Your task to perform on an android device: Open Reddit.com Image 0: 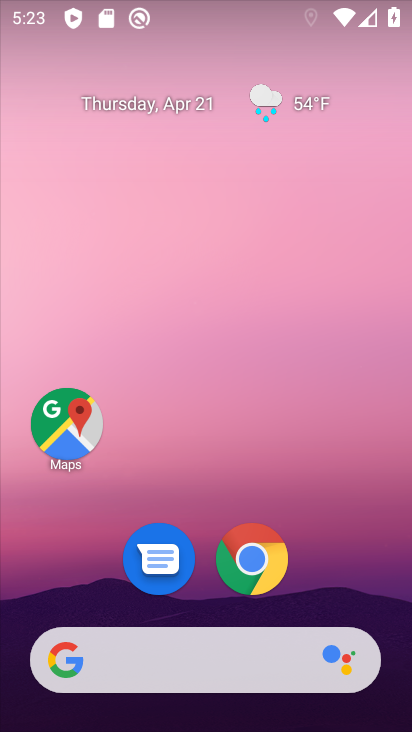
Step 0: drag from (341, 548) to (351, 0)
Your task to perform on an android device: Open Reddit.com Image 1: 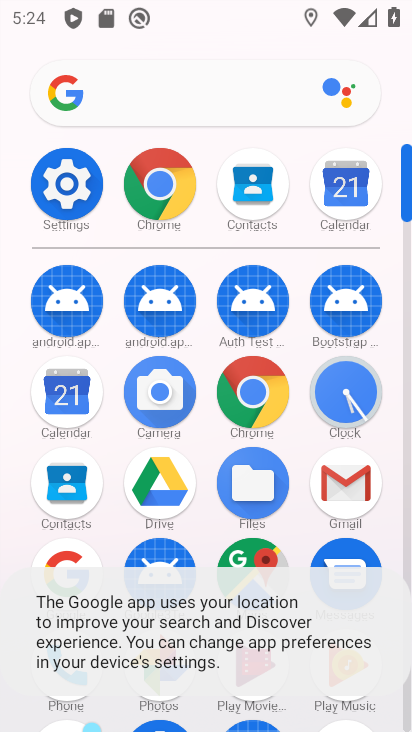
Step 1: click (156, 189)
Your task to perform on an android device: Open Reddit.com Image 2: 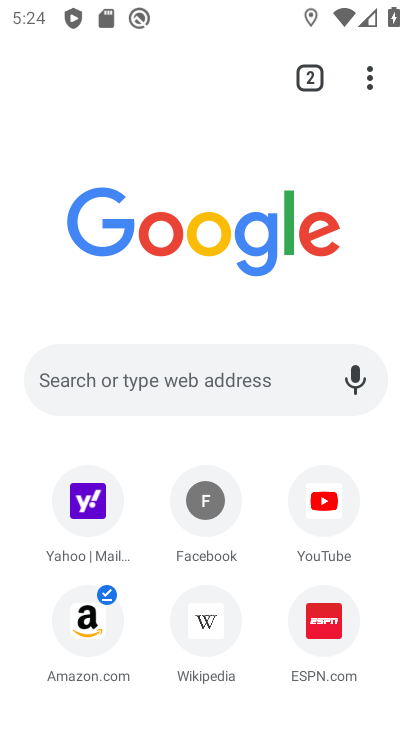
Step 2: click (183, 386)
Your task to perform on an android device: Open Reddit.com Image 3: 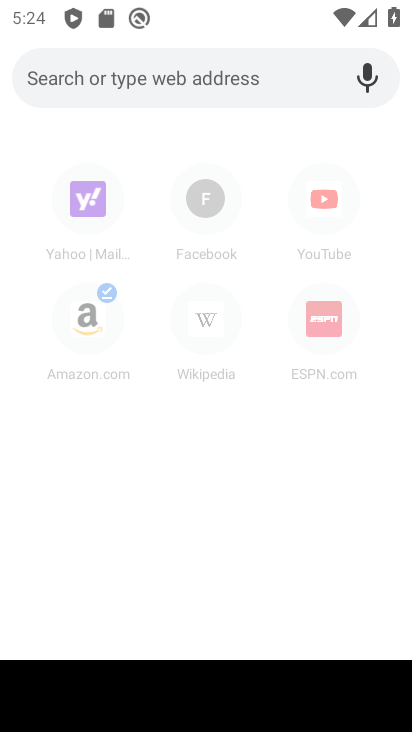
Step 3: type "reddit"
Your task to perform on an android device: Open Reddit.com Image 4: 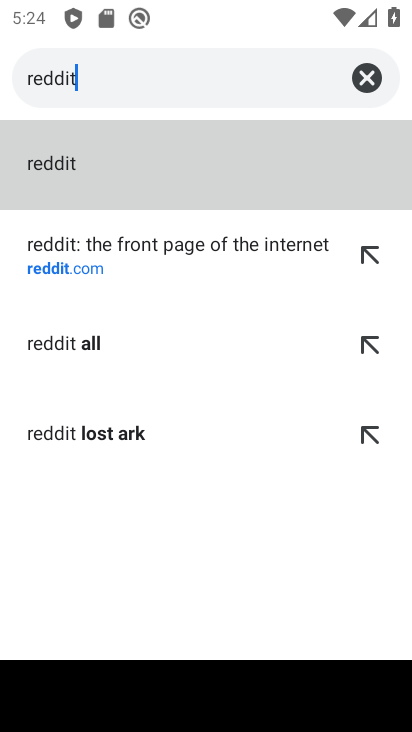
Step 4: type ".com"
Your task to perform on an android device: Open Reddit.com Image 5: 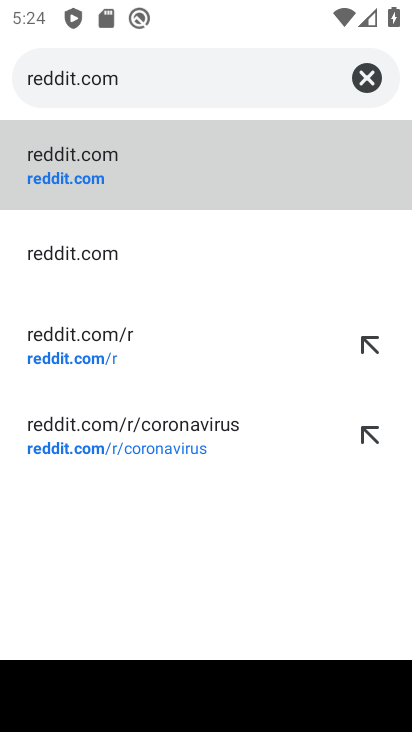
Step 5: click (46, 175)
Your task to perform on an android device: Open Reddit.com Image 6: 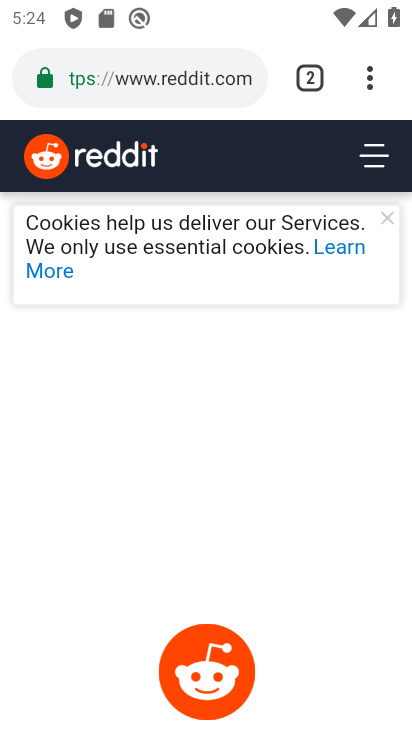
Step 6: task complete